Your task to perform on an android device: turn notification dots on Image 0: 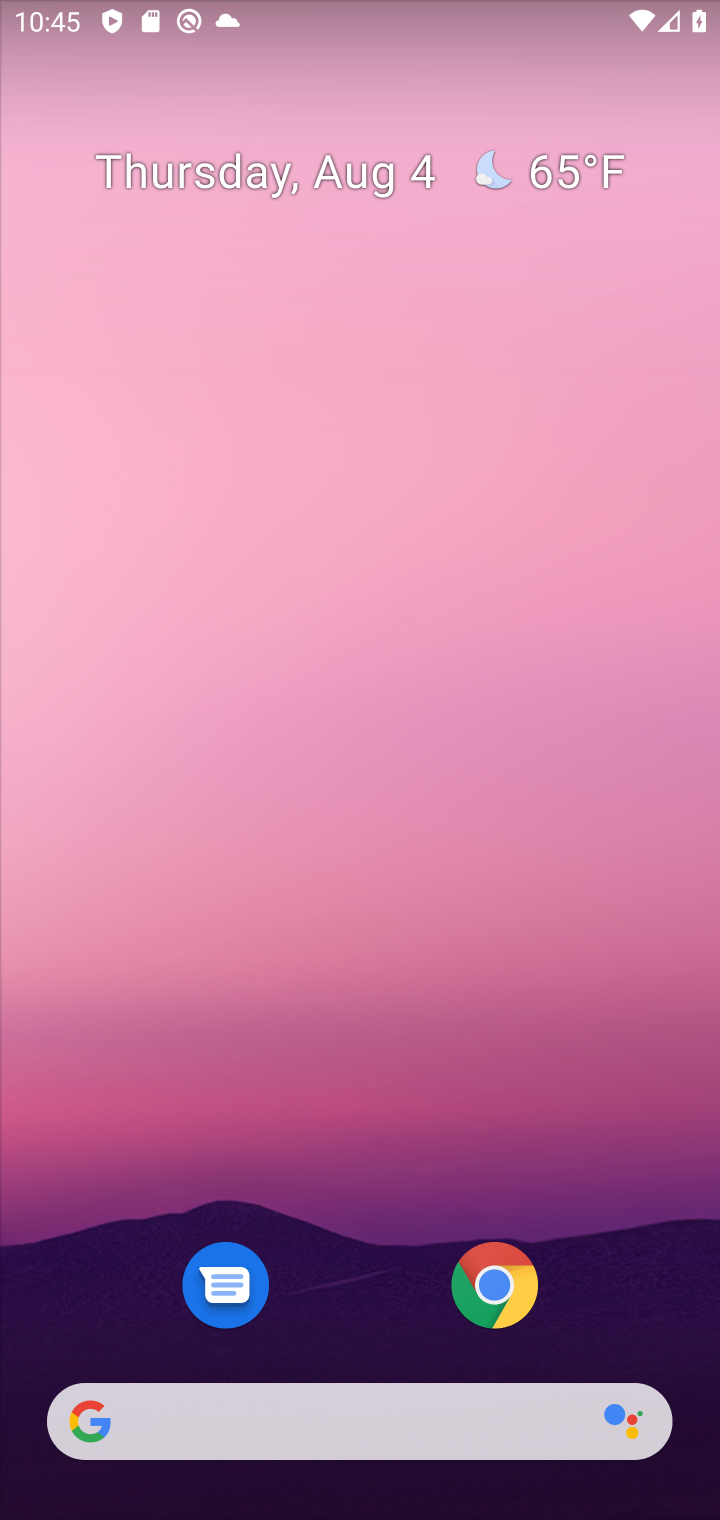
Step 0: drag from (259, 1286) to (391, 91)
Your task to perform on an android device: turn notification dots on Image 1: 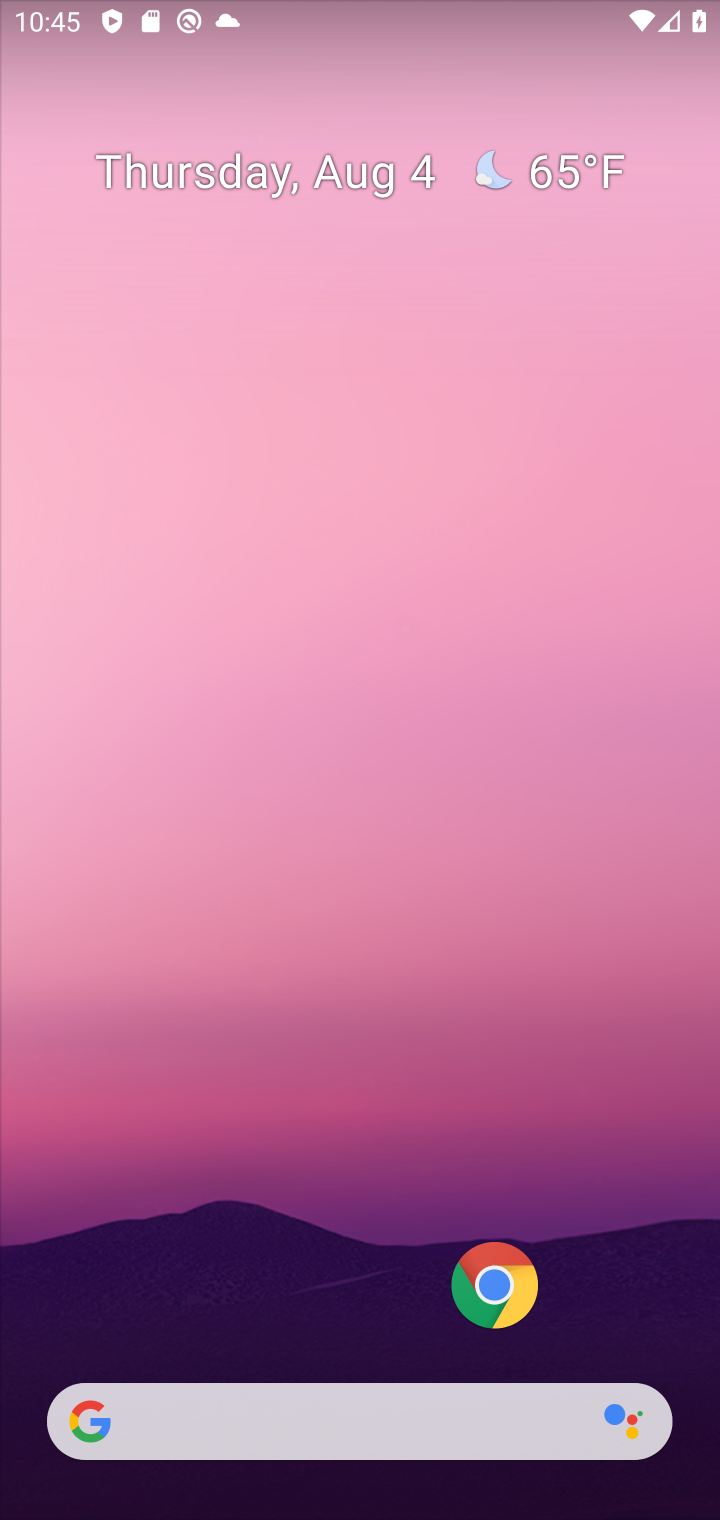
Step 1: drag from (225, 1160) to (198, 16)
Your task to perform on an android device: turn notification dots on Image 2: 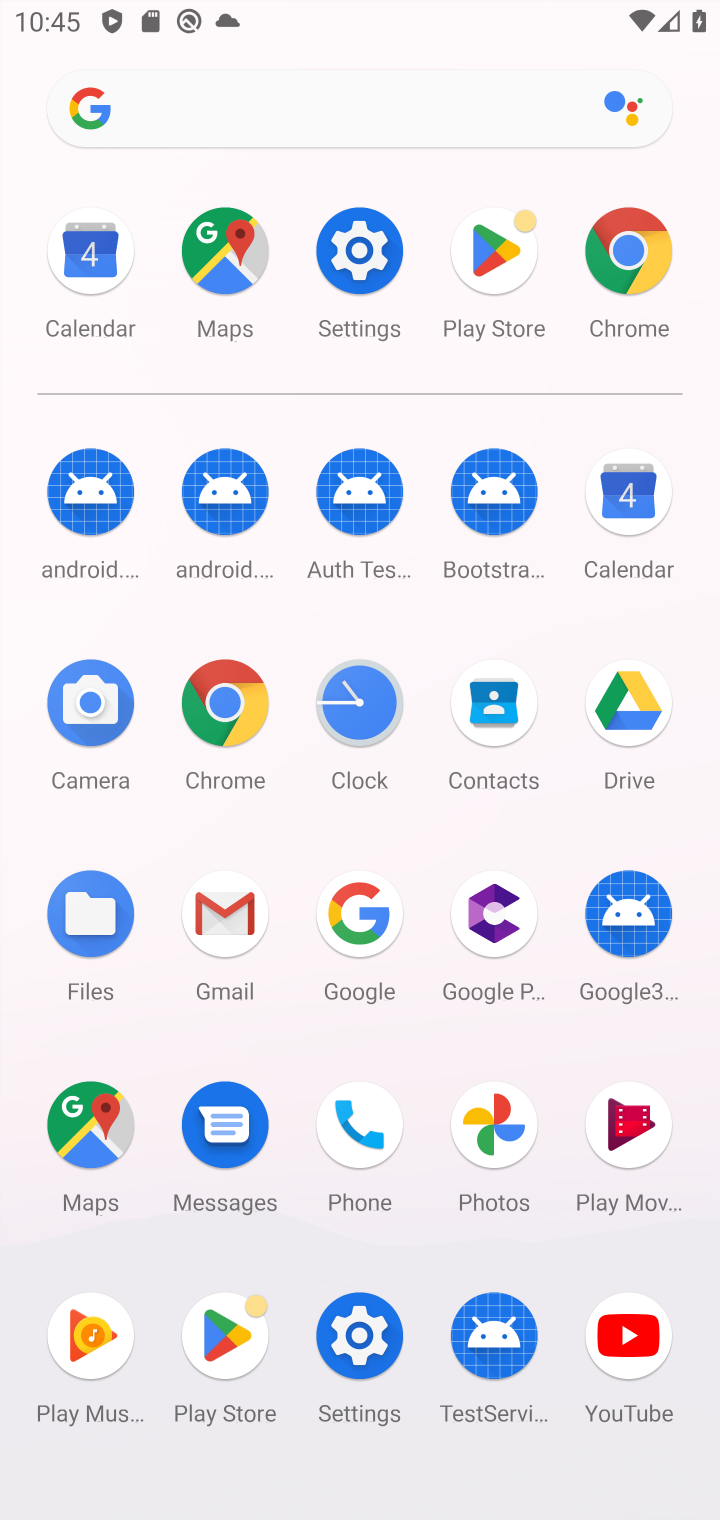
Step 2: click (364, 1323)
Your task to perform on an android device: turn notification dots on Image 3: 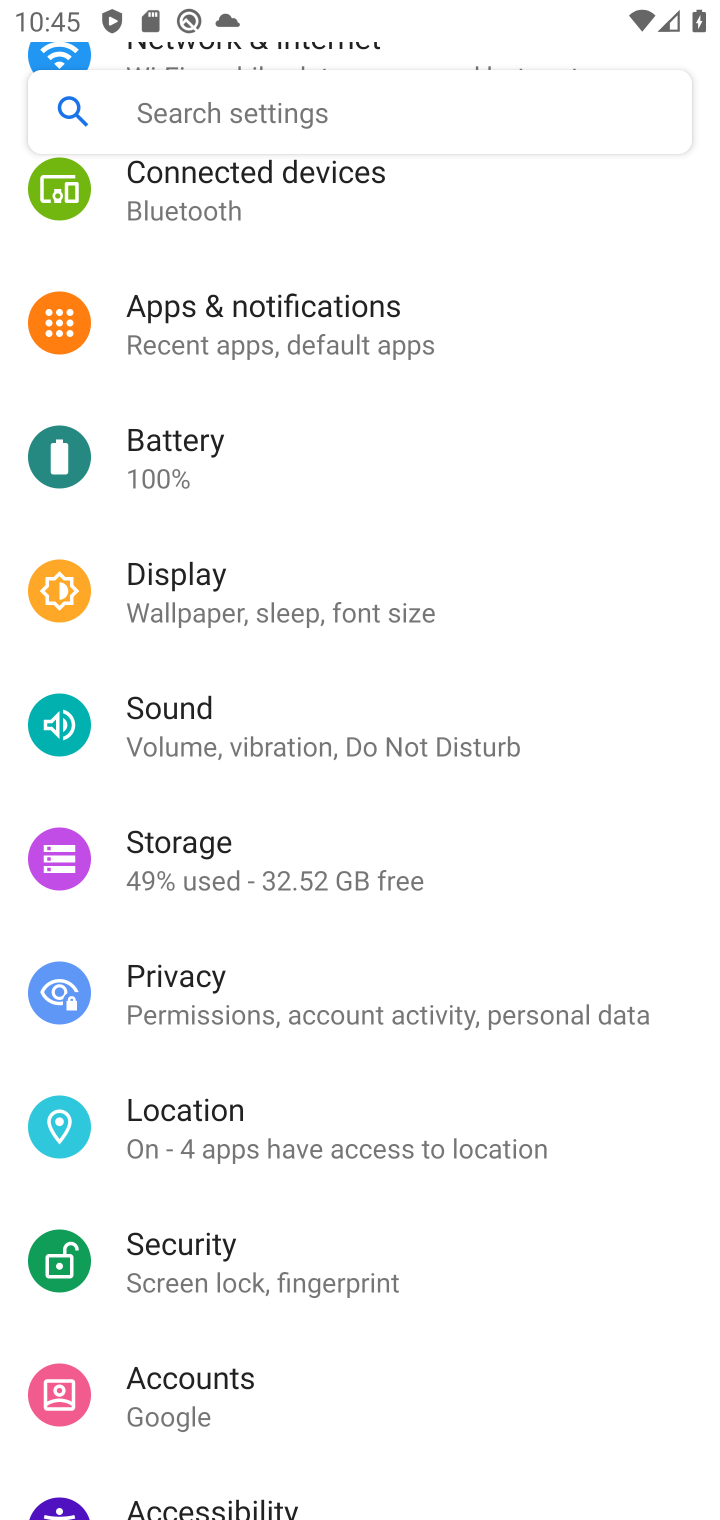
Step 3: click (253, 305)
Your task to perform on an android device: turn notification dots on Image 4: 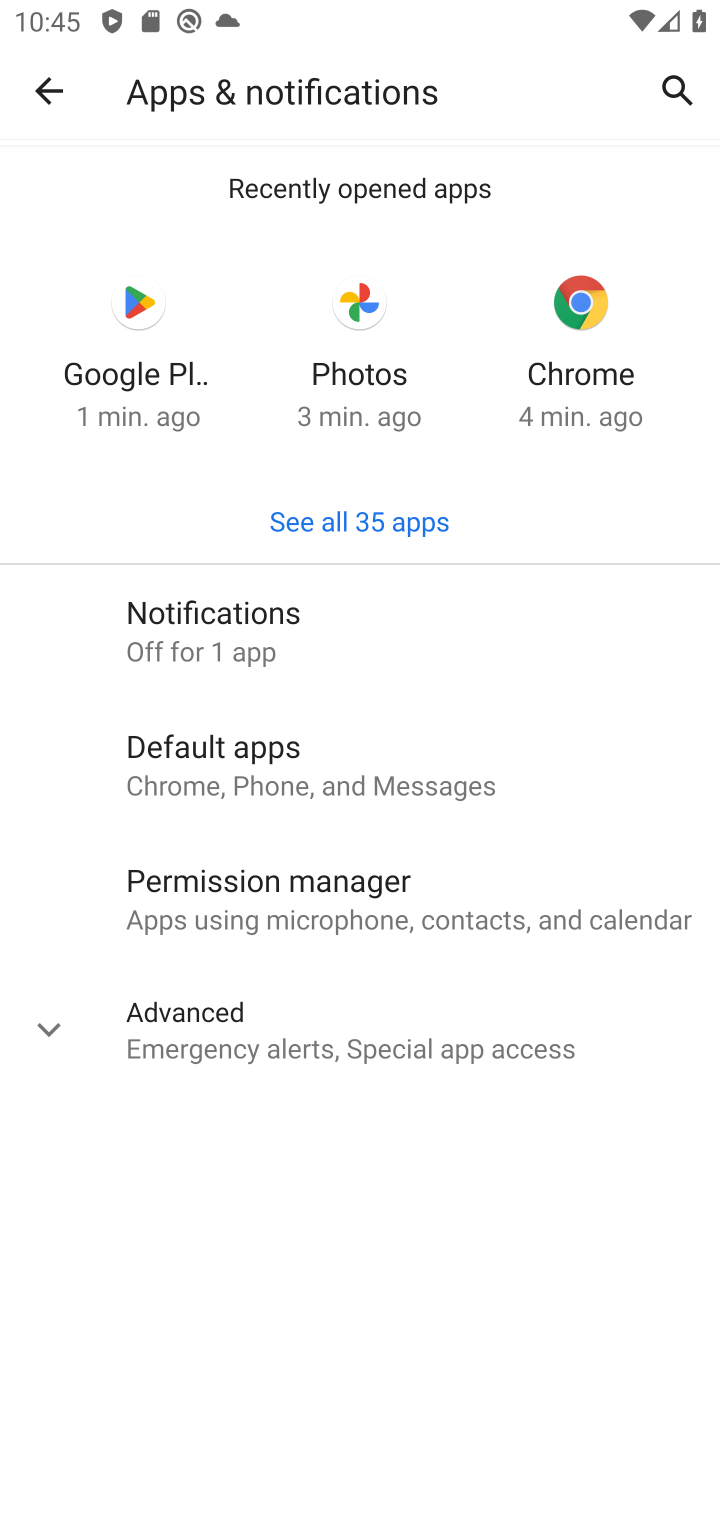
Step 4: click (254, 630)
Your task to perform on an android device: turn notification dots on Image 5: 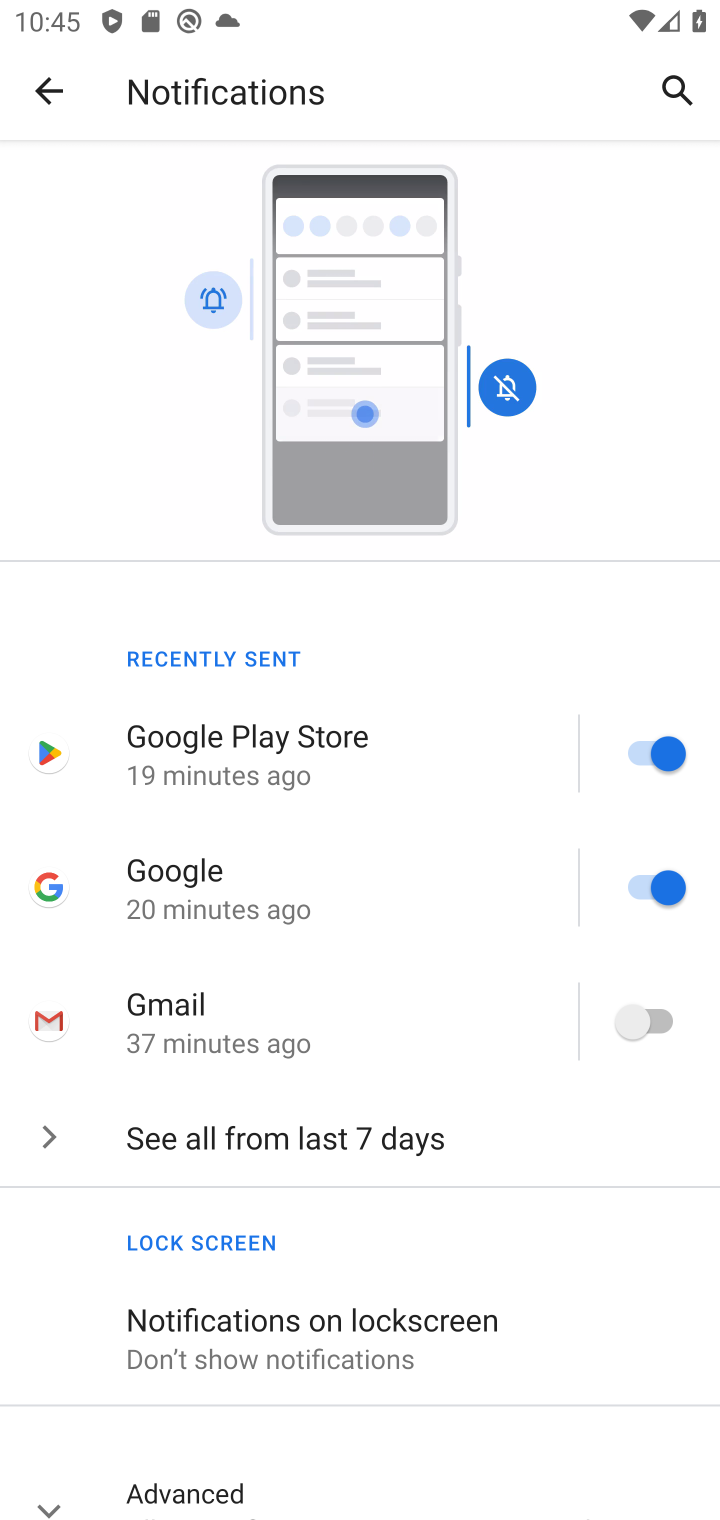
Step 5: drag from (467, 1417) to (438, 372)
Your task to perform on an android device: turn notification dots on Image 6: 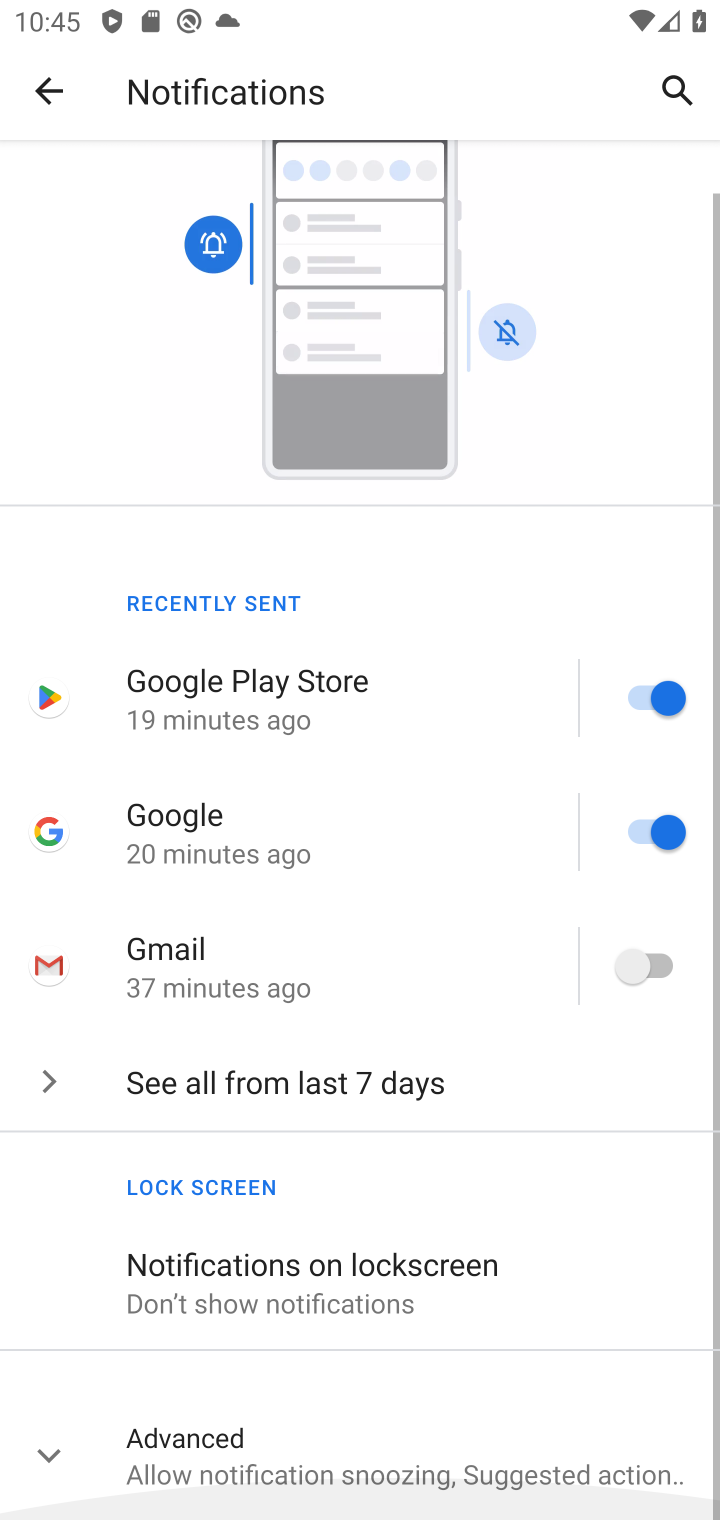
Step 6: click (210, 1420)
Your task to perform on an android device: turn notification dots on Image 7: 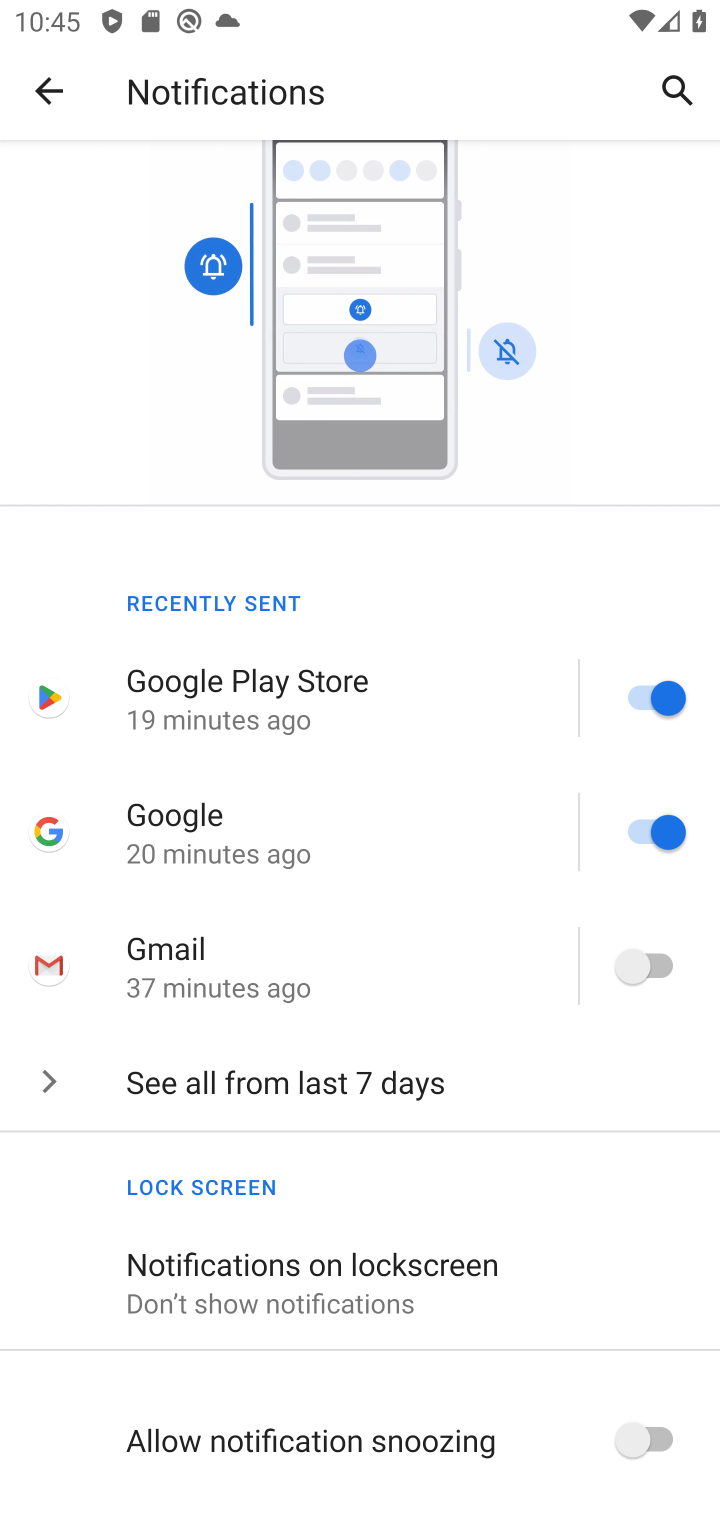
Step 7: task complete